Your task to perform on an android device: turn off javascript in the chrome app Image 0: 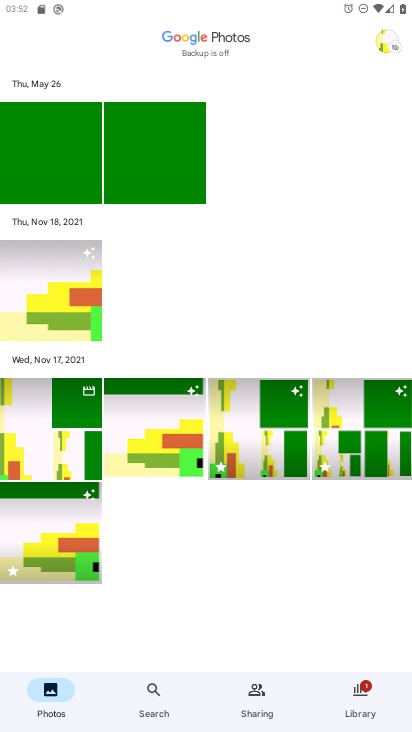
Step 0: press home button
Your task to perform on an android device: turn off javascript in the chrome app Image 1: 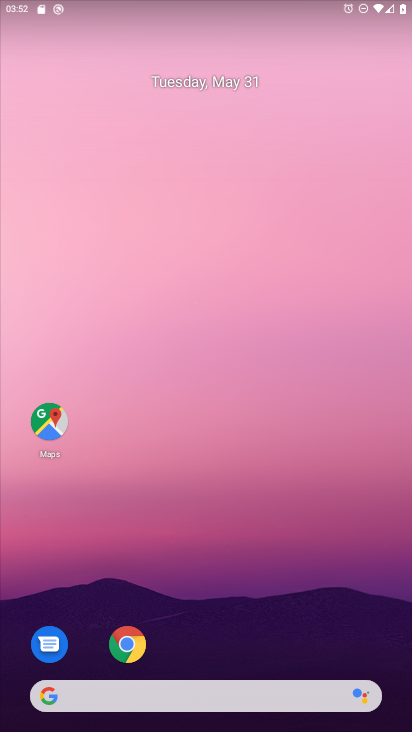
Step 1: drag from (253, 582) to (250, 198)
Your task to perform on an android device: turn off javascript in the chrome app Image 2: 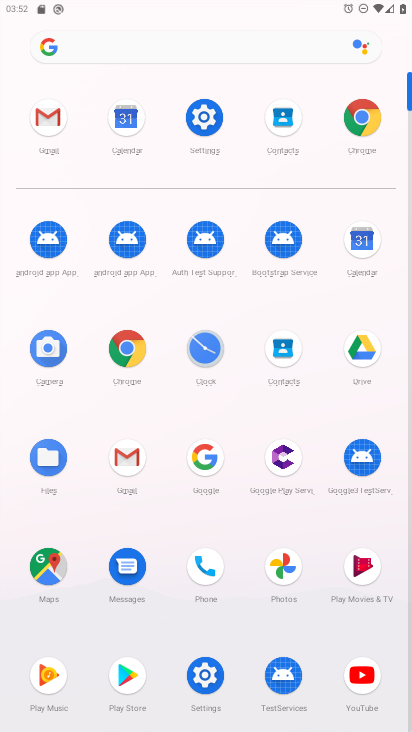
Step 2: click (126, 347)
Your task to perform on an android device: turn off javascript in the chrome app Image 3: 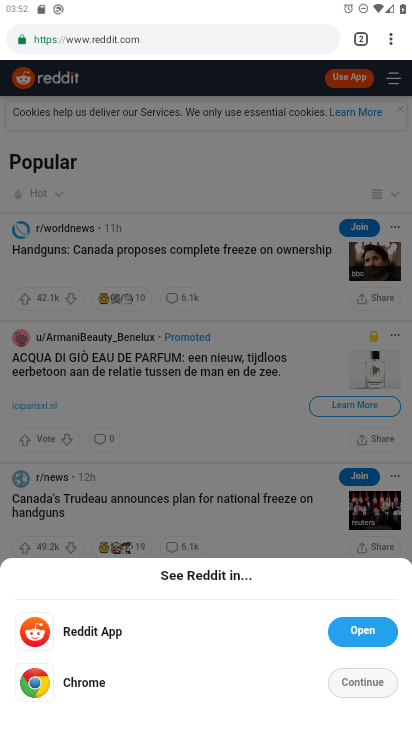
Step 3: click (390, 44)
Your task to perform on an android device: turn off javascript in the chrome app Image 4: 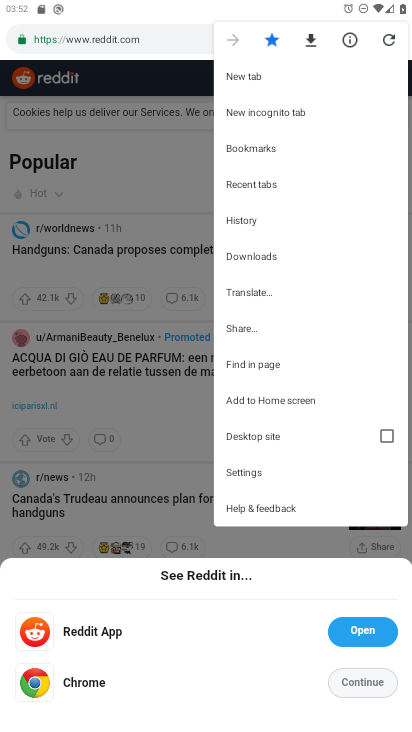
Step 4: click (262, 469)
Your task to perform on an android device: turn off javascript in the chrome app Image 5: 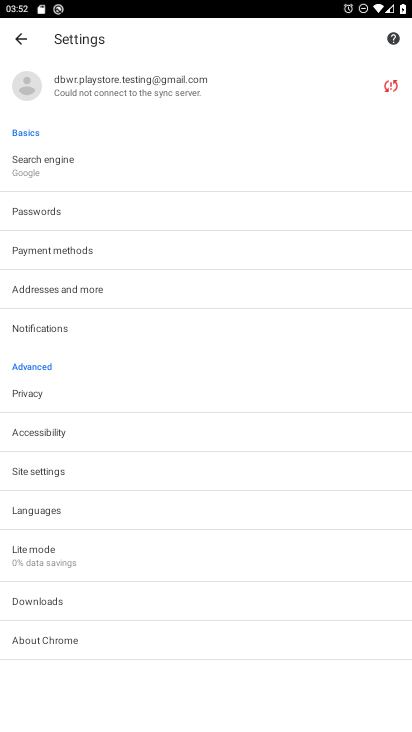
Step 5: click (60, 468)
Your task to perform on an android device: turn off javascript in the chrome app Image 6: 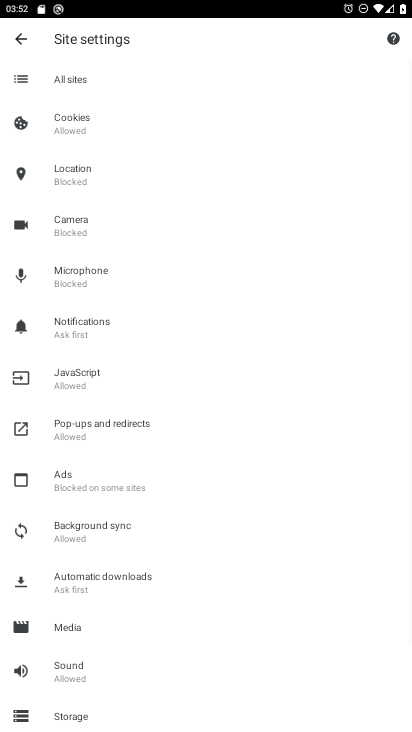
Step 6: click (72, 380)
Your task to perform on an android device: turn off javascript in the chrome app Image 7: 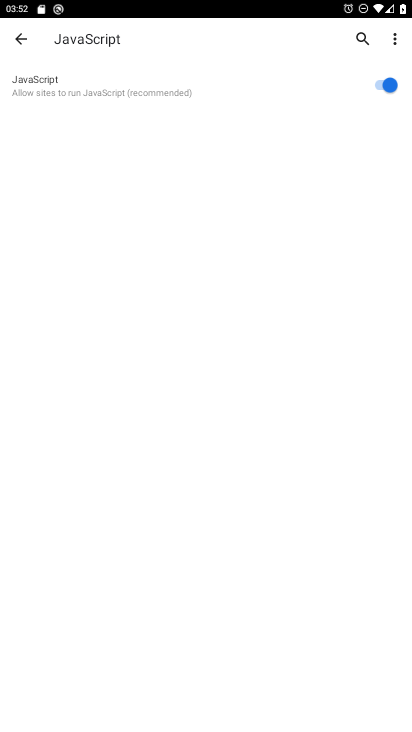
Step 7: click (383, 87)
Your task to perform on an android device: turn off javascript in the chrome app Image 8: 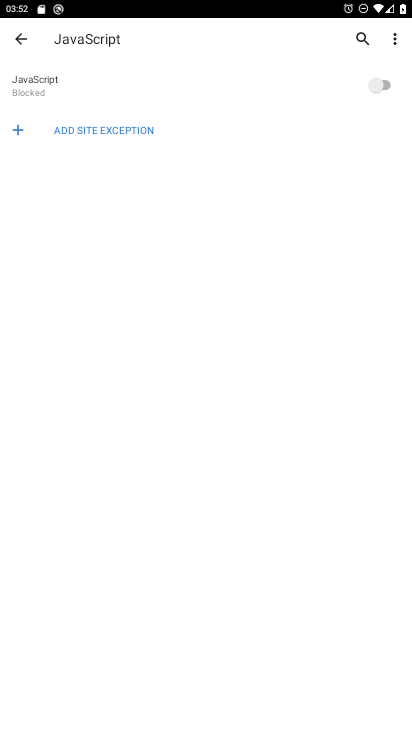
Step 8: task complete